Your task to perform on an android device: Open the map Image 0: 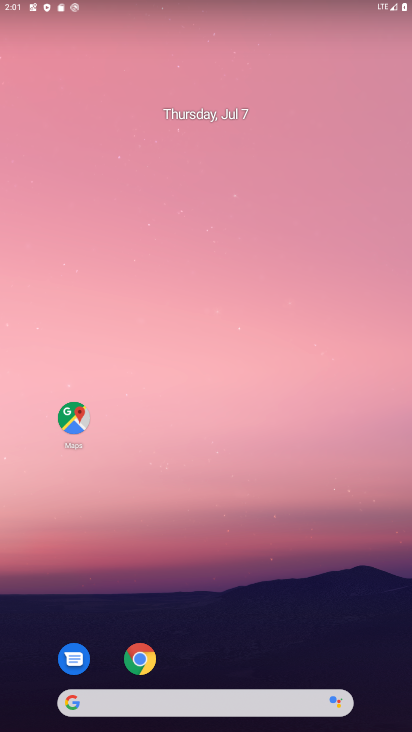
Step 0: click (74, 418)
Your task to perform on an android device: Open the map Image 1: 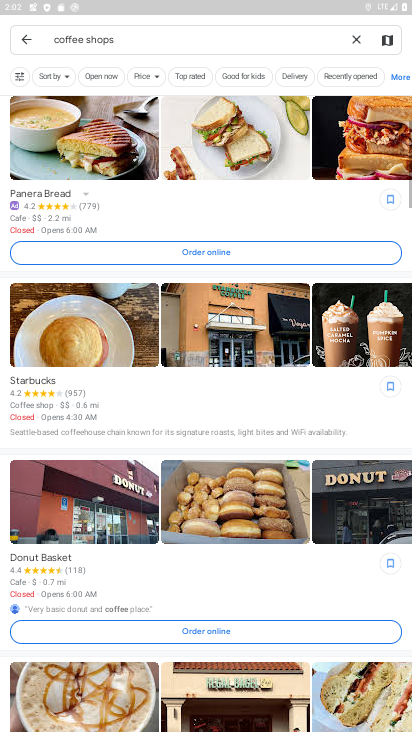
Step 1: click (357, 35)
Your task to perform on an android device: Open the map Image 2: 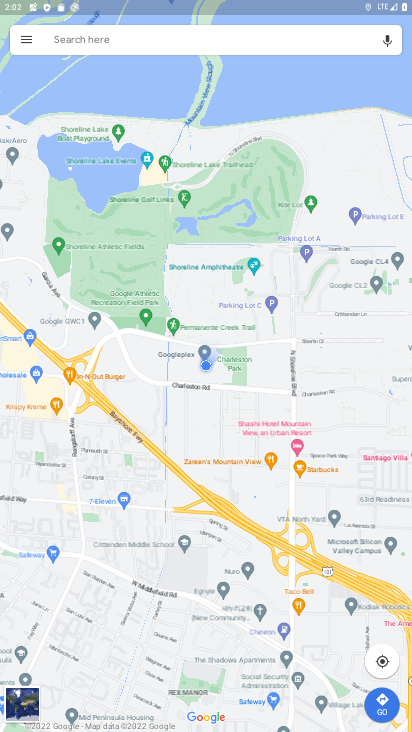
Step 2: task complete